Your task to perform on an android device: clear history in the chrome app Image 0: 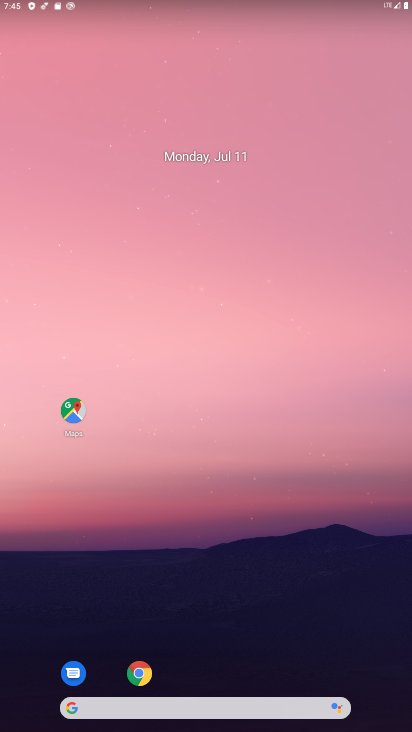
Step 0: click (133, 677)
Your task to perform on an android device: clear history in the chrome app Image 1: 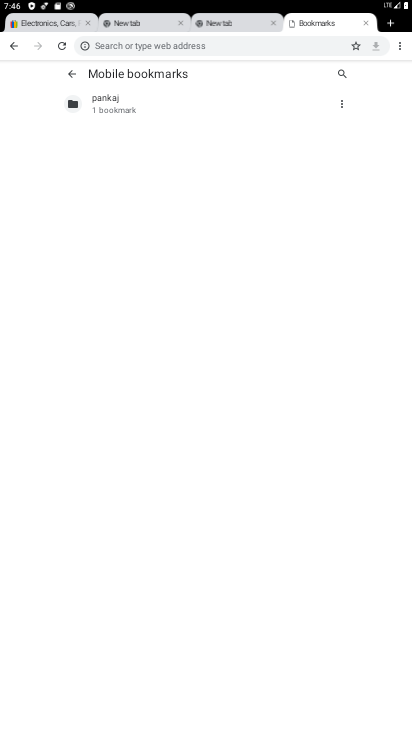
Step 1: click (401, 44)
Your task to perform on an android device: clear history in the chrome app Image 2: 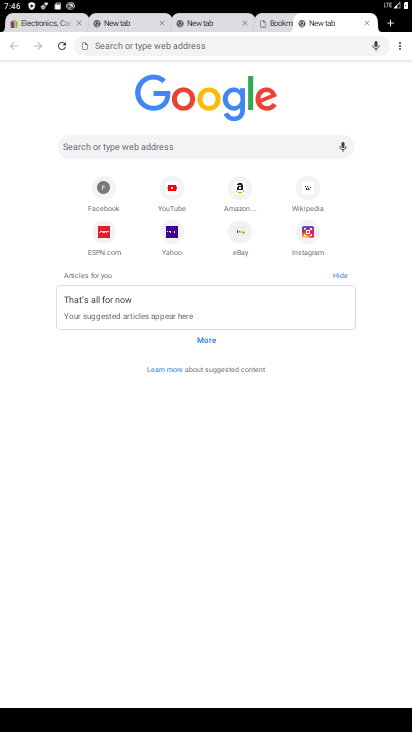
Step 2: click (401, 44)
Your task to perform on an android device: clear history in the chrome app Image 3: 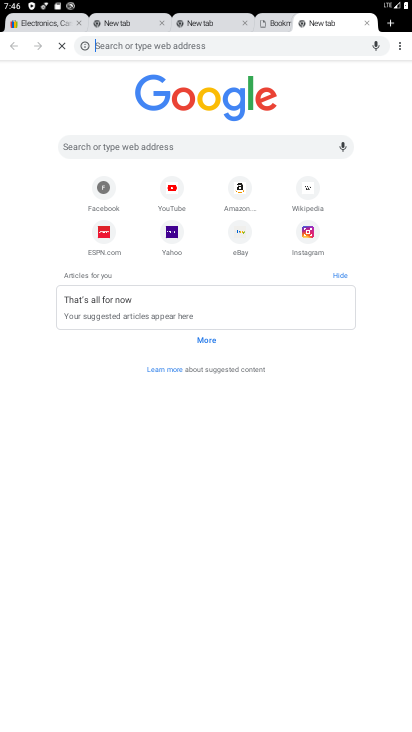
Step 3: click (401, 44)
Your task to perform on an android device: clear history in the chrome app Image 4: 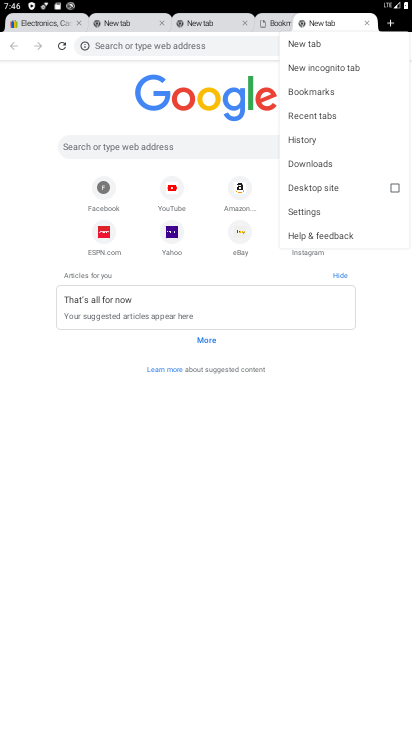
Step 4: click (301, 135)
Your task to perform on an android device: clear history in the chrome app Image 5: 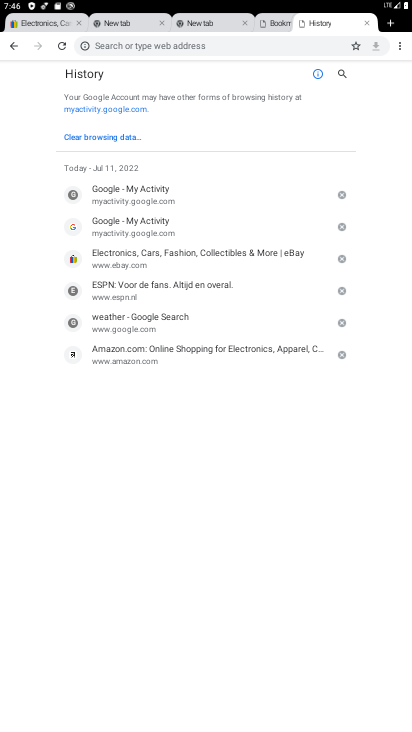
Step 5: click (127, 138)
Your task to perform on an android device: clear history in the chrome app Image 6: 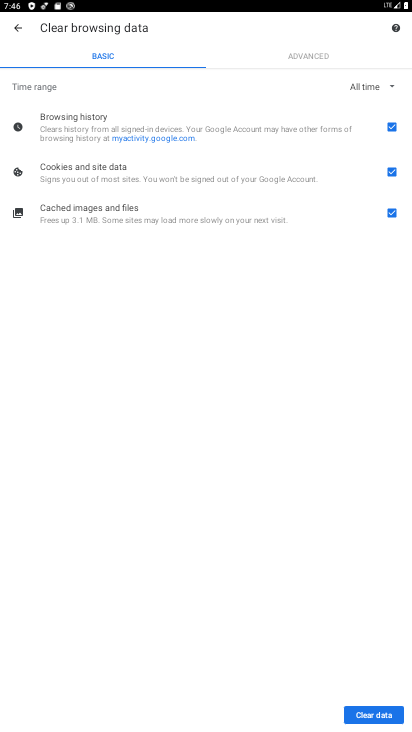
Step 6: click (352, 712)
Your task to perform on an android device: clear history in the chrome app Image 7: 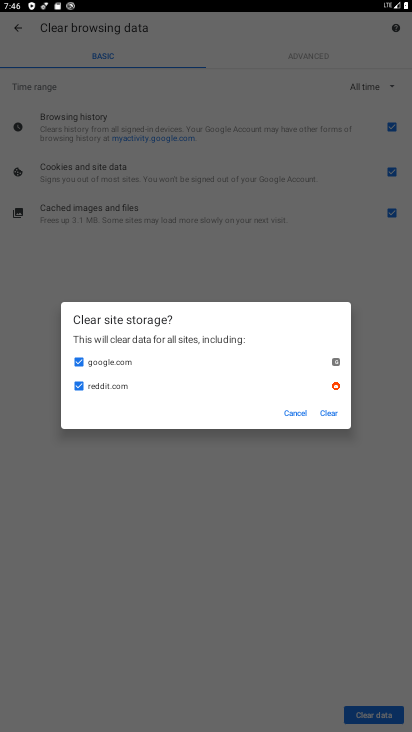
Step 7: click (328, 419)
Your task to perform on an android device: clear history in the chrome app Image 8: 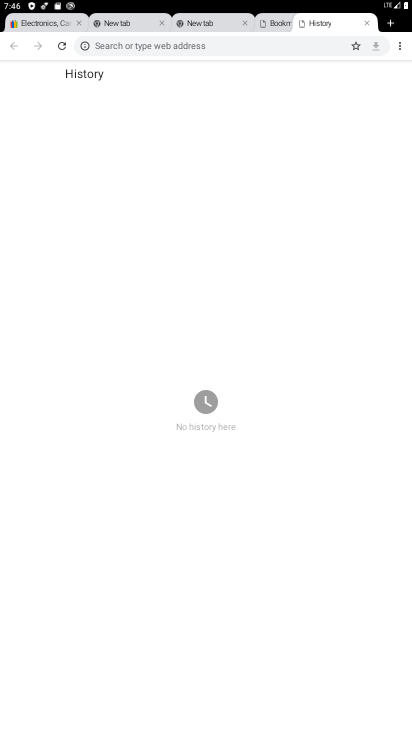
Step 8: task complete